Your task to perform on an android device: turn notification dots on Image 0: 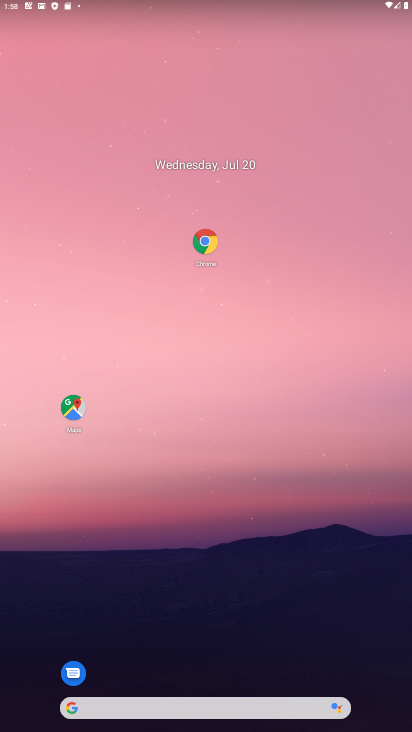
Step 0: drag from (197, 602) to (188, 87)
Your task to perform on an android device: turn notification dots on Image 1: 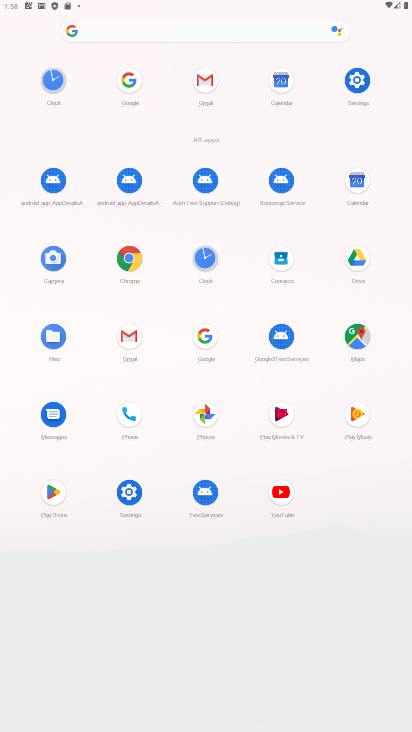
Step 1: click (357, 79)
Your task to perform on an android device: turn notification dots on Image 2: 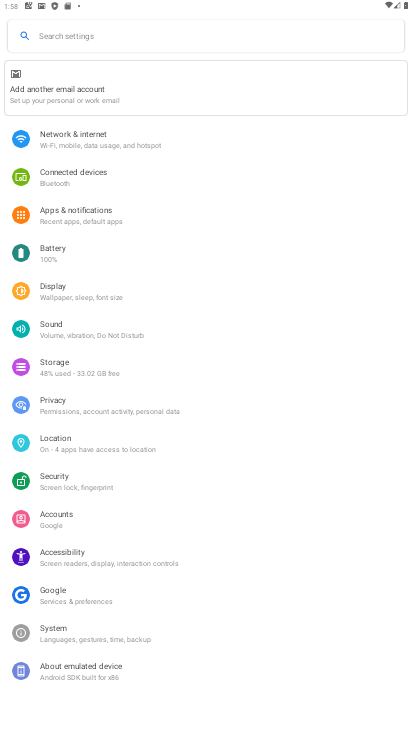
Step 2: click (108, 210)
Your task to perform on an android device: turn notification dots on Image 3: 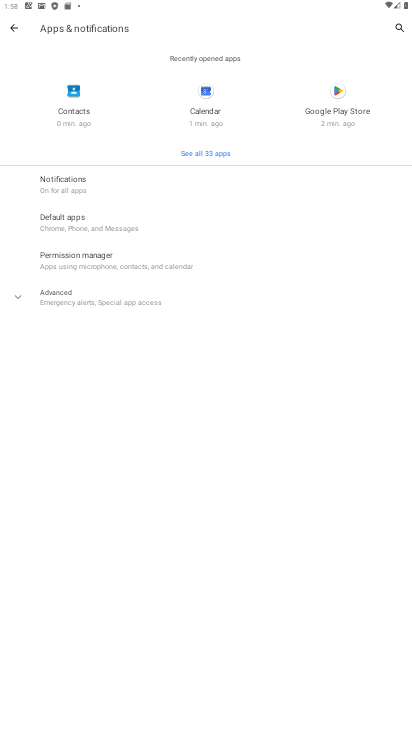
Step 3: click (55, 184)
Your task to perform on an android device: turn notification dots on Image 4: 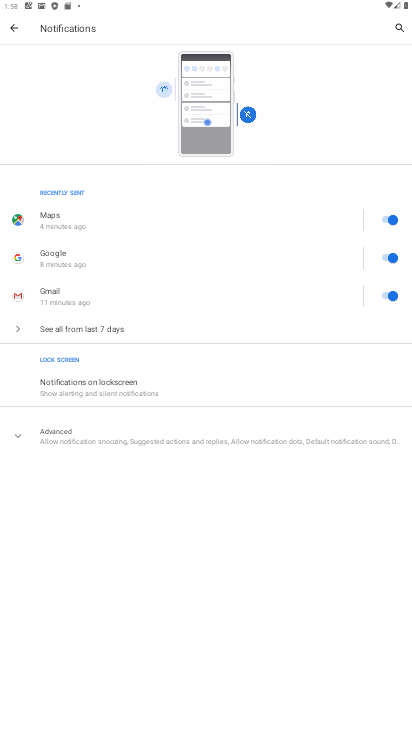
Step 4: click (69, 437)
Your task to perform on an android device: turn notification dots on Image 5: 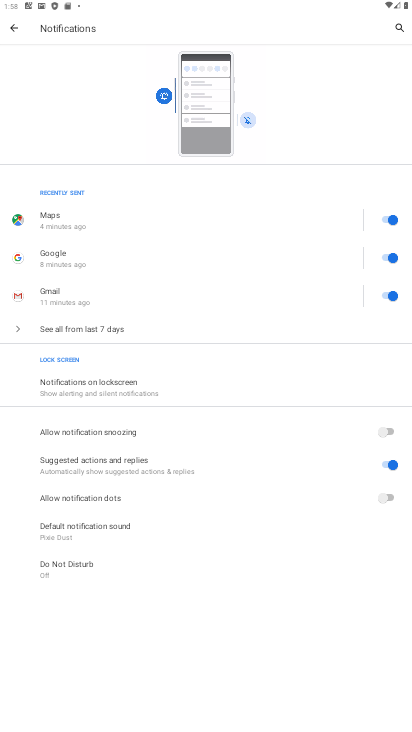
Step 5: click (386, 500)
Your task to perform on an android device: turn notification dots on Image 6: 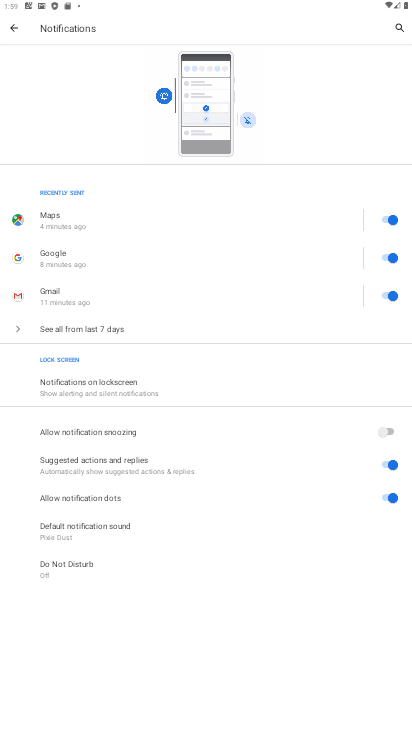
Step 6: task complete